Your task to perform on an android device: turn on airplane mode Image 0: 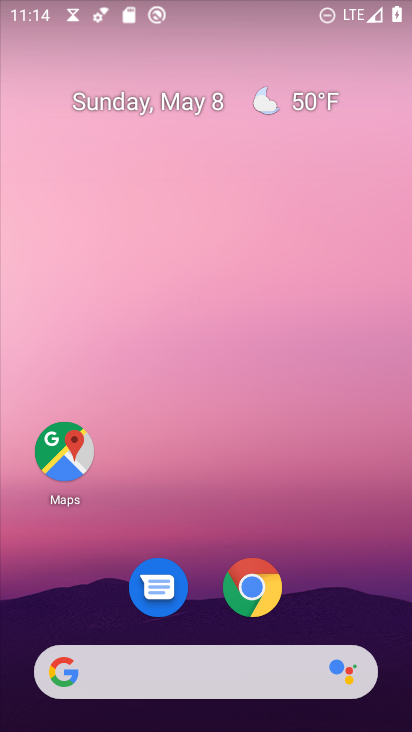
Step 0: drag from (318, 564) to (213, 139)
Your task to perform on an android device: turn on airplane mode Image 1: 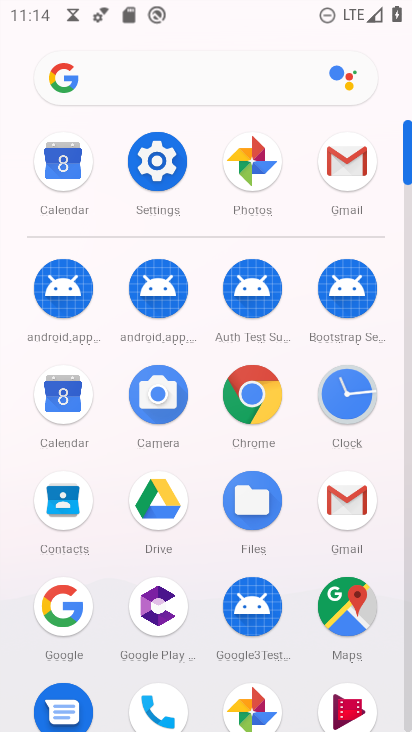
Step 1: click (165, 148)
Your task to perform on an android device: turn on airplane mode Image 2: 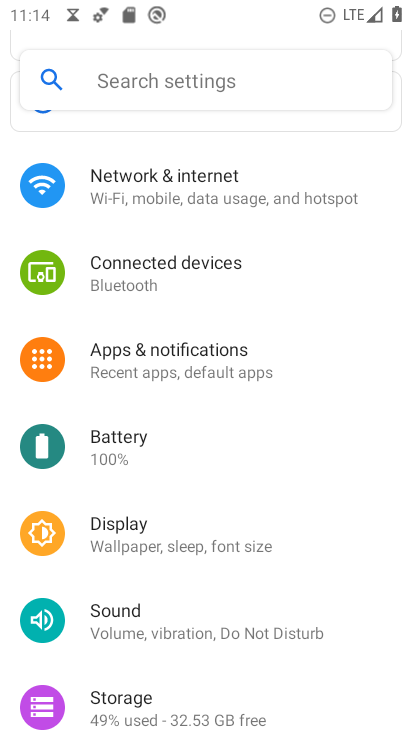
Step 2: click (195, 196)
Your task to perform on an android device: turn on airplane mode Image 3: 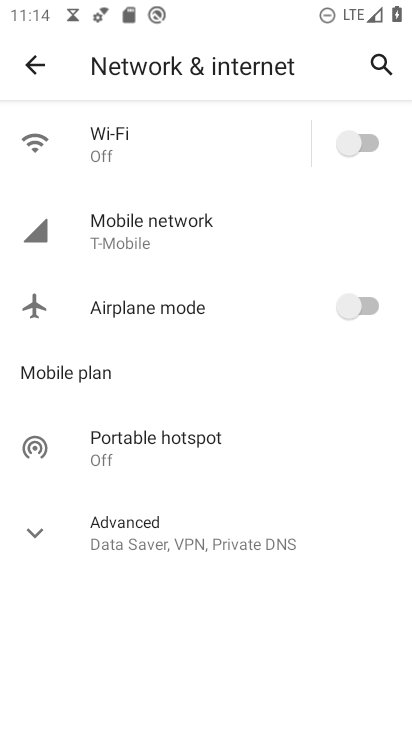
Step 3: click (359, 304)
Your task to perform on an android device: turn on airplane mode Image 4: 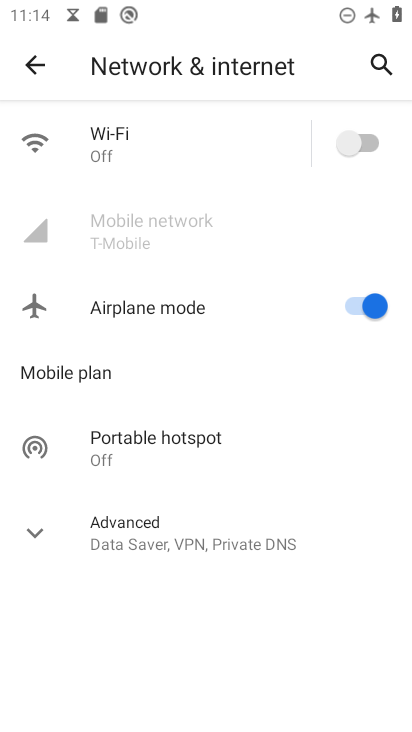
Step 4: task complete